Your task to perform on an android device: Open Maps and search for coffee Image 0: 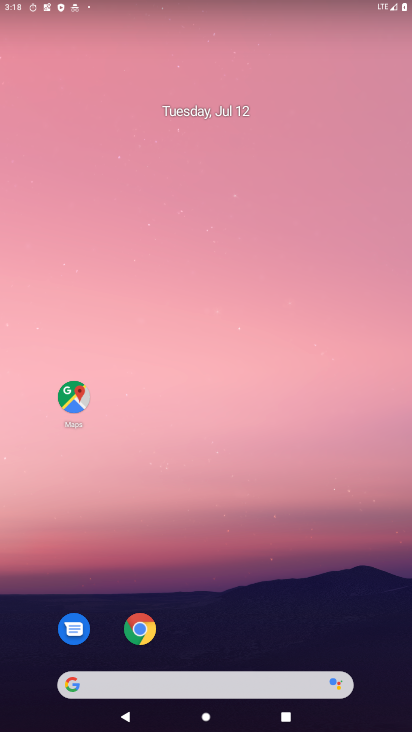
Step 0: drag from (276, 635) to (263, 112)
Your task to perform on an android device: Open Maps and search for coffee Image 1: 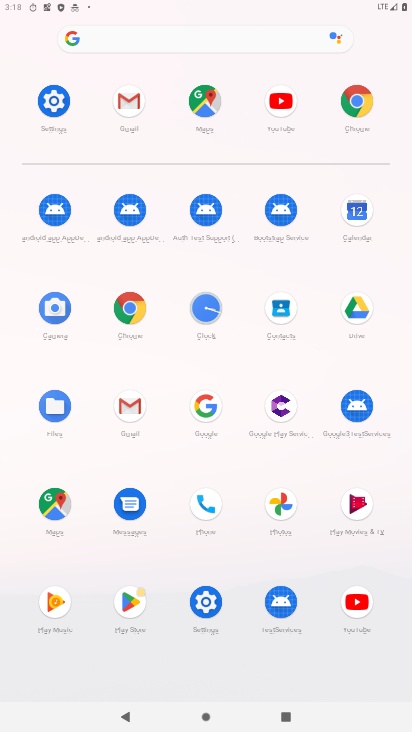
Step 1: click (128, 404)
Your task to perform on an android device: Open Maps and search for coffee Image 2: 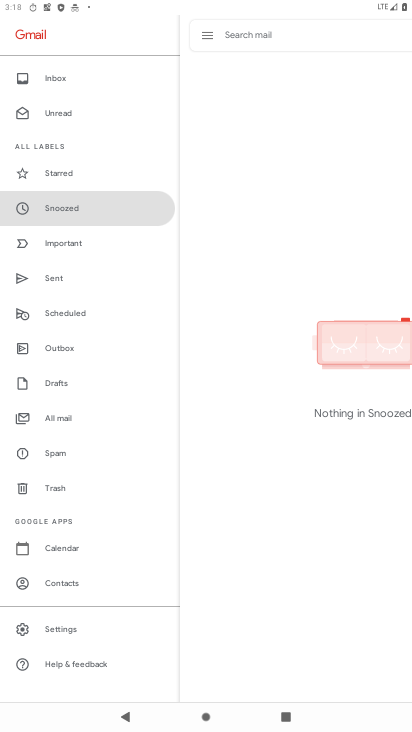
Step 2: press back button
Your task to perform on an android device: Open Maps and search for coffee Image 3: 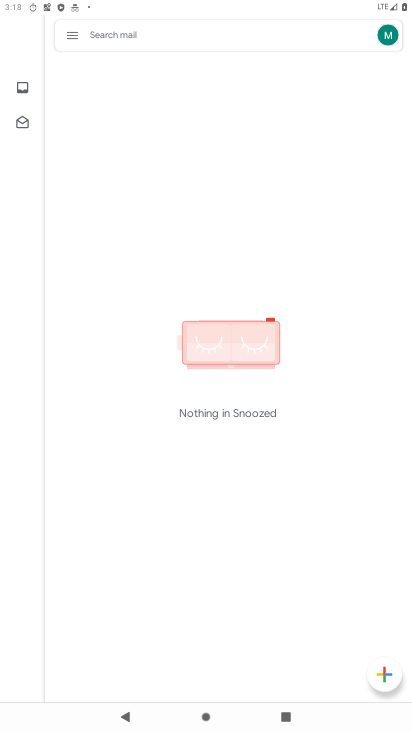
Step 3: press back button
Your task to perform on an android device: Open Maps and search for coffee Image 4: 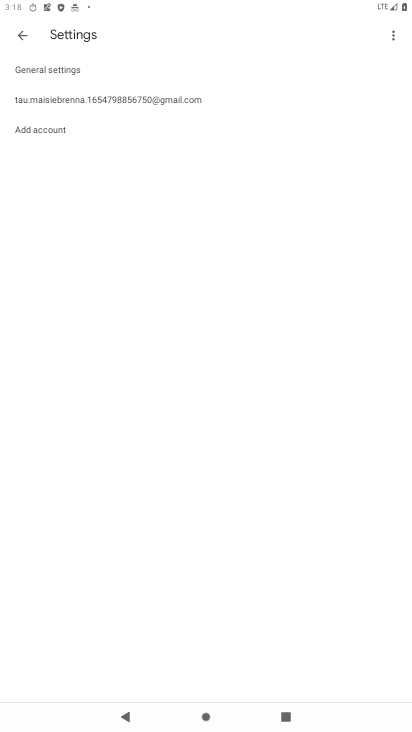
Step 4: press home button
Your task to perform on an android device: Open Maps and search for coffee Image 5: 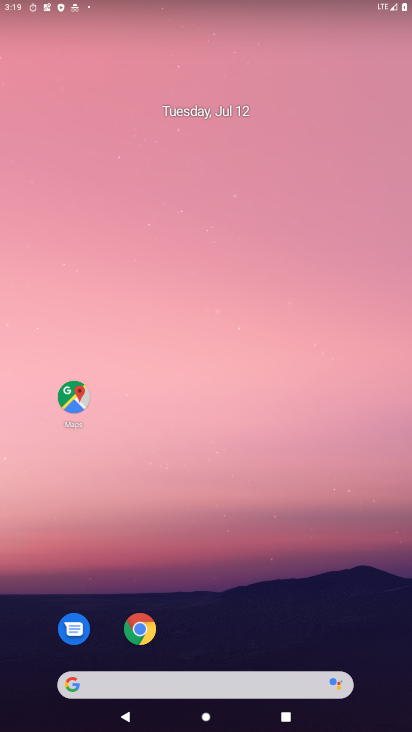
Step 5: click (77, 395)
Your task to perform on an android device: Open Maps and search for coffee Image 6: 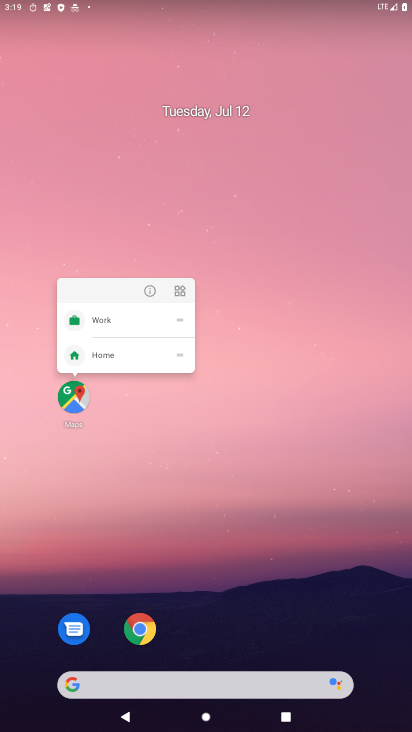
Step 6: click (77, 395)
Your task to perform on an android device: Open Maps and search for coffee Image 7: 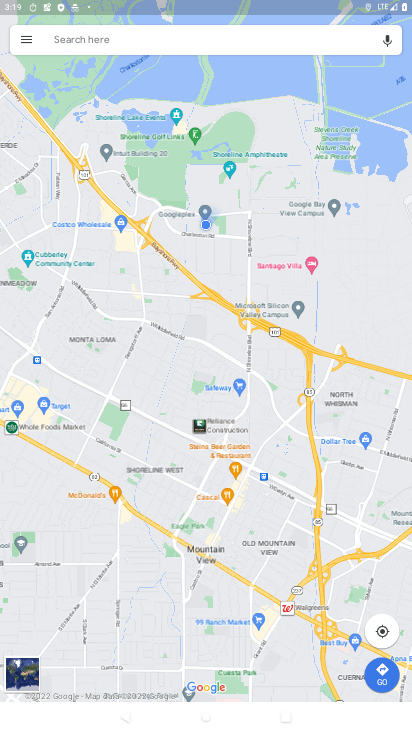
Step 7: click (187, 36)
Your task to perform on an android device: Open Maps and search for coffee Image 8: 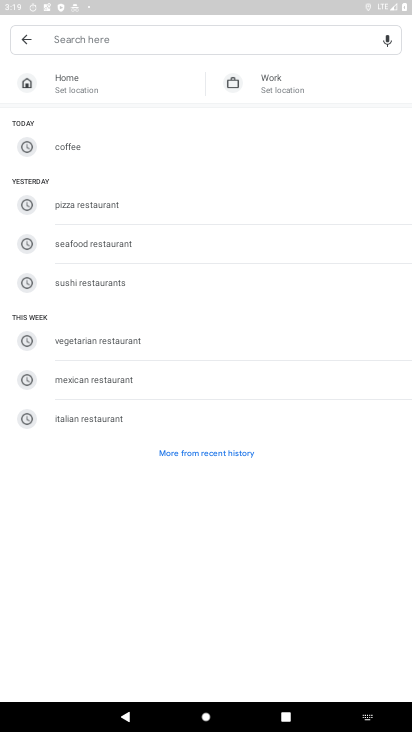
Step 8: type "coffee"
Your task to perform on an android device: Open Maps and search for coffee Image 9: 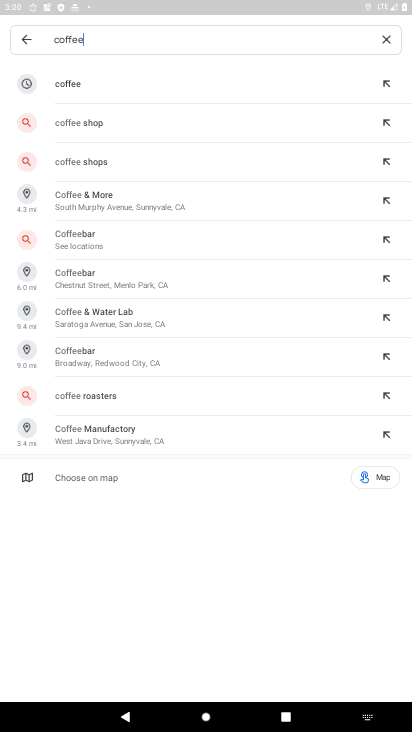
Step 9: click (53, 80)
Your task to perform on an android device: Open Maps and search for coffee Image 10: 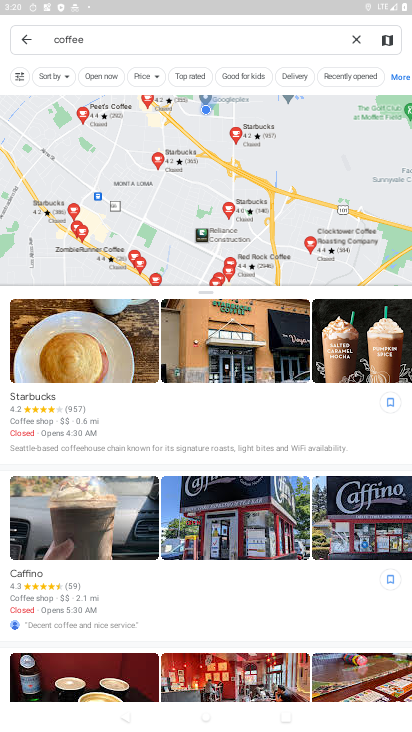
Step 10: task complete